Your task to perform on an android device: allow notifications from all sites in the chrome app Image 0: 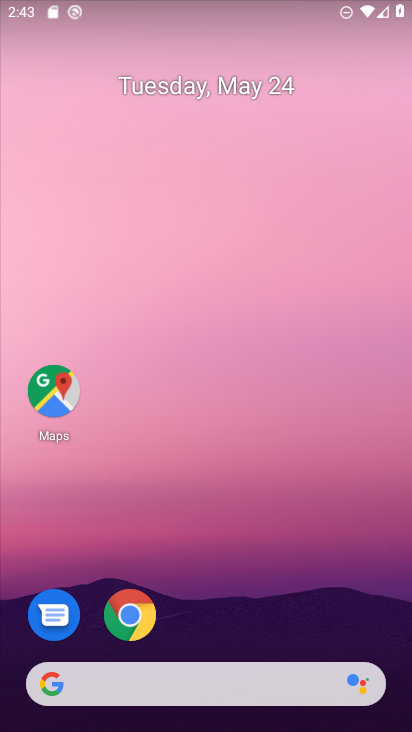
Step 0: drag from (191, 638) to (291, 87)
Your task to perform on an android device: allow notifications from all sites in the chrome app Image 1: 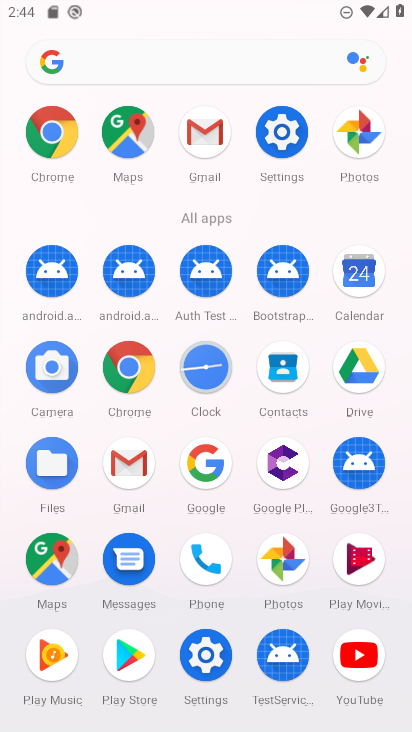
Step 1: click (64, 143)
Your task to perform on an android device: allow notifications from all sites in the chrome app Image 2: 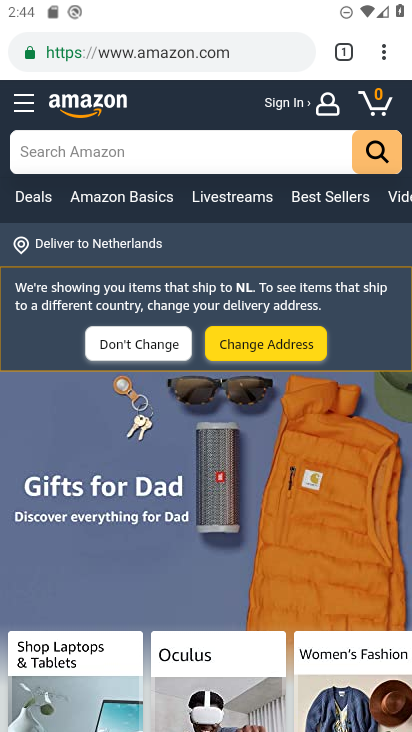
Step 2: click (389, 53)
Your task to perform on an android device: allow notifications from all sites in the chrome app Image 3: 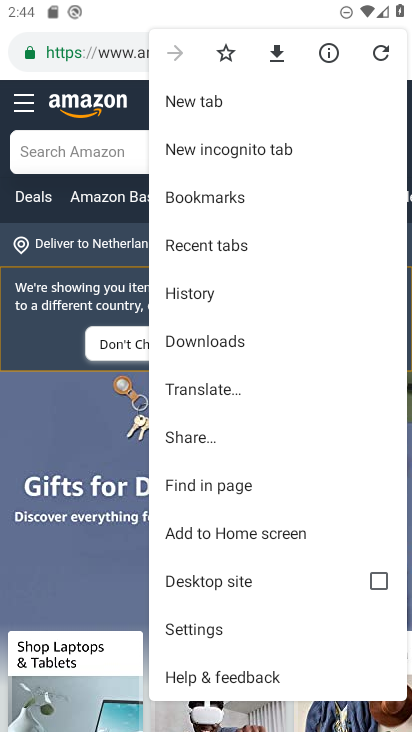
Step 3: click (207, 638)
Your task to perform on an android device: allow notifications from all sites in the chrome app Image 4: 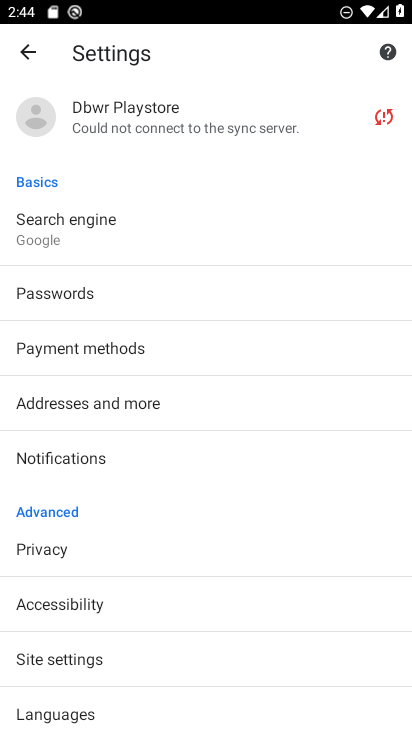
Step 4: click (86, 458)
Your task to perform on an android device: allow notifications from all sites in the chrome app Image 5: 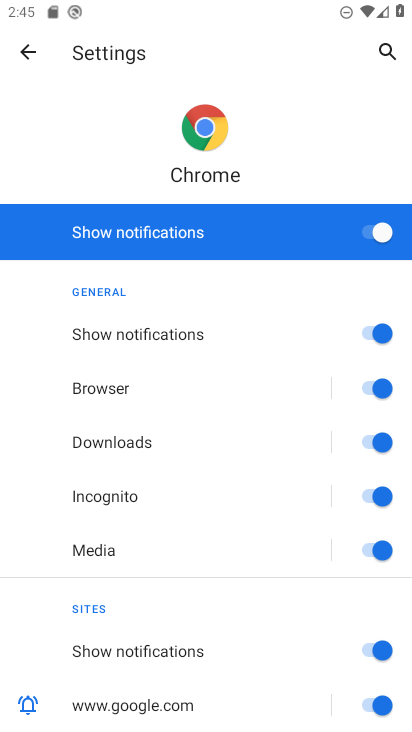
Step 5: task complete